Your task to perform on an android device: Go to ESPN.com Image 0: 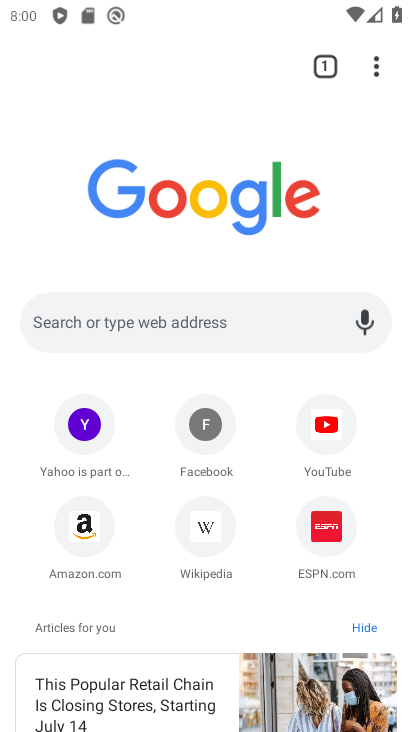
Step 0: click (207, 327)
Your task to perform on an android device: Go to ESPN.com Image 1: 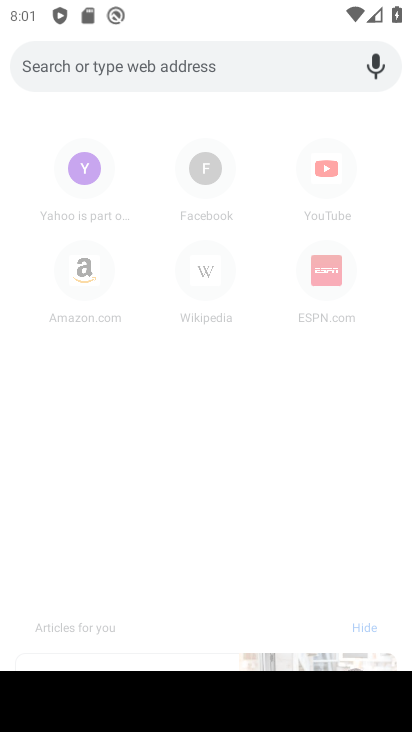
Step 1: type "espn.com"
Your task to perform on an android device: Go to ESPN.com Image 2: 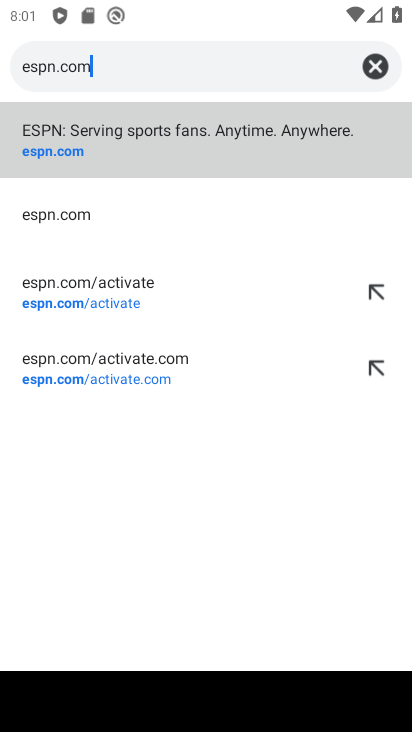
Step 2: click (57, 149)
Your task to perform on an android device: Go to ESPN.com Image 3: 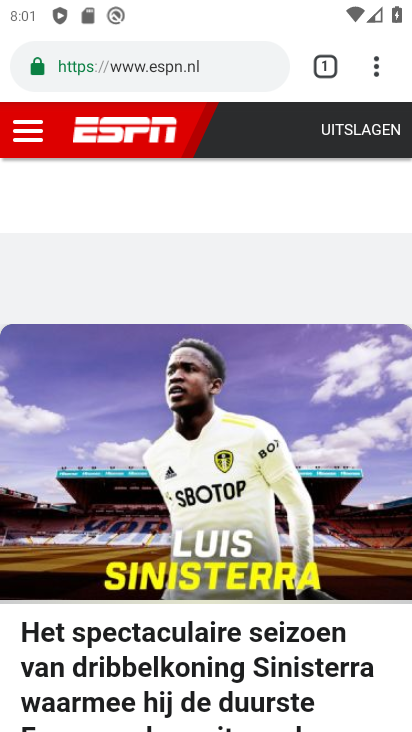
Step 3: task complete